Your task to perform on an android device: Open sound settings Image 0: 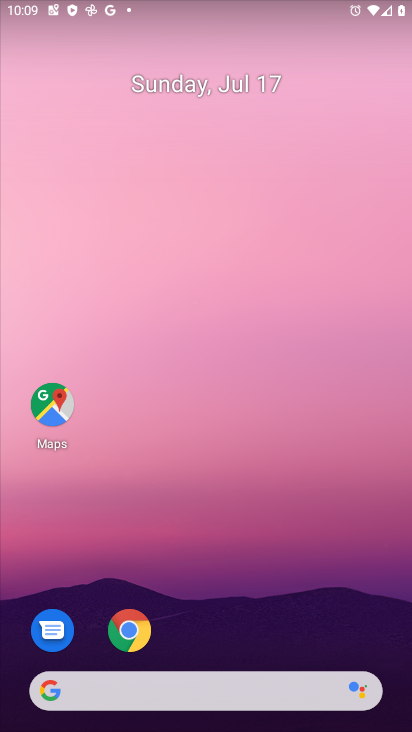
Step 0: drag from (180, 608) to (194, 61)
Your task to perform on an android device: Open sound settings Image 1: 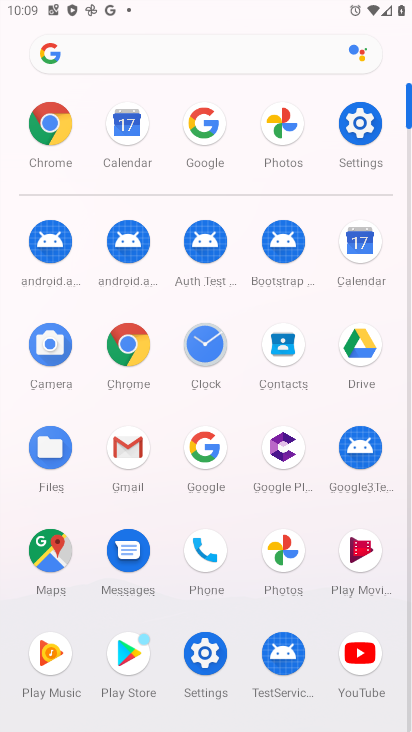
Step 1: click (365, 116)
Your task to perform on an android device: Open sound settings Image 2: 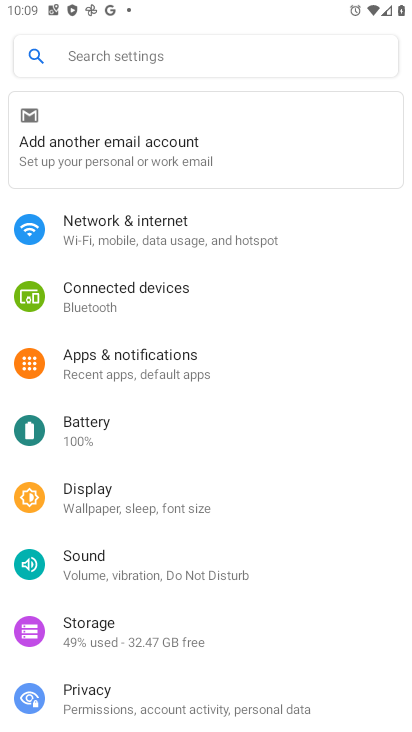
Step 2: click (45, 568)
Your task to perform on an android device: Open sound settings Image 3: 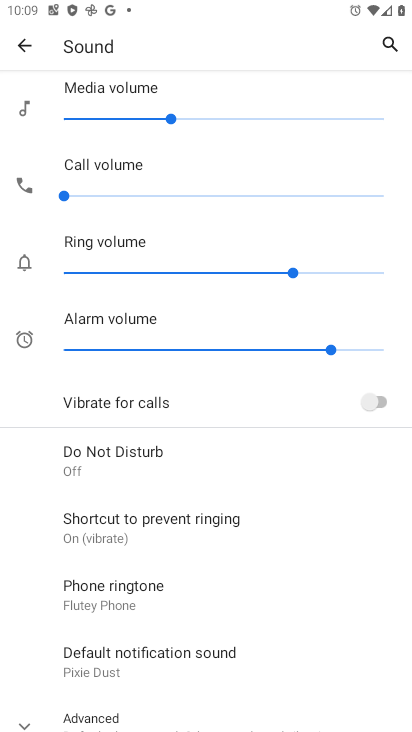
Step 3: task complete